Your task to perform on an android device: Is it going to rain tomorrow? Image 0: 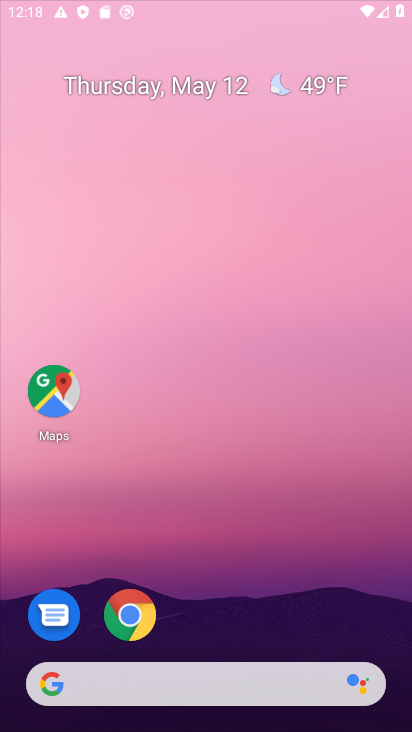
Step 0: drag from (235, 694) to (339, 336)
Your task to perform on an android device: Is it going to rain tomorrow? Image 1: 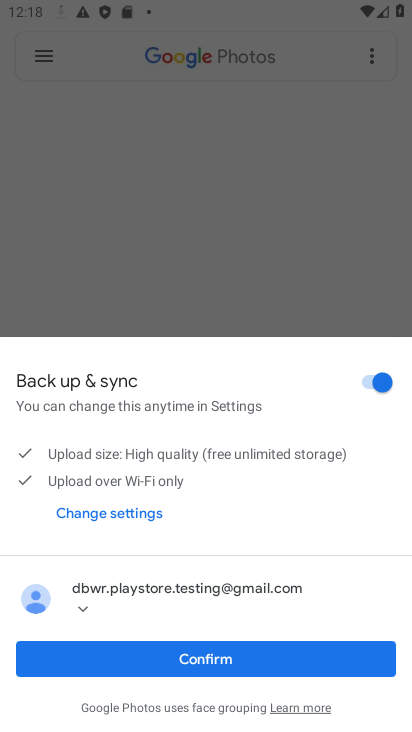
Step 1: click (190, 653)
Your task to perform on an android device: Is it going to rain tomorrow? Image 2: 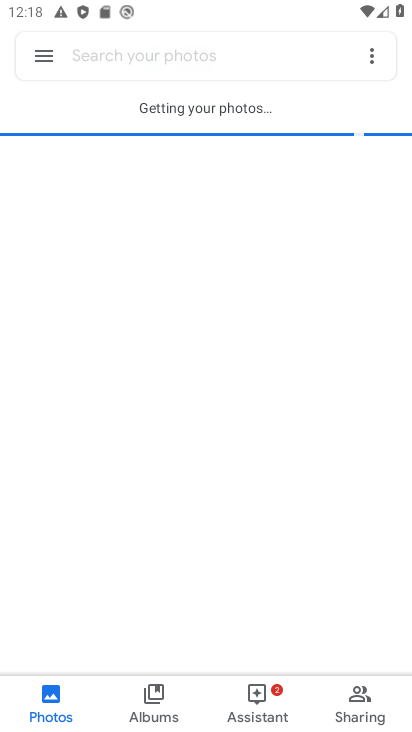
Step 2: press home button
Your task to perform on an android device: Is it going to rain tomorrow? Image 3: 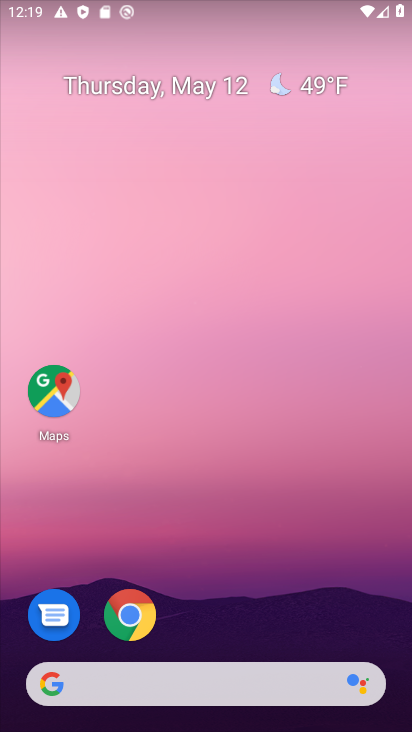
Step 3: click (145, 683)
Your task to perform on an android device: Is it going to rain tomorrow? Image 4: 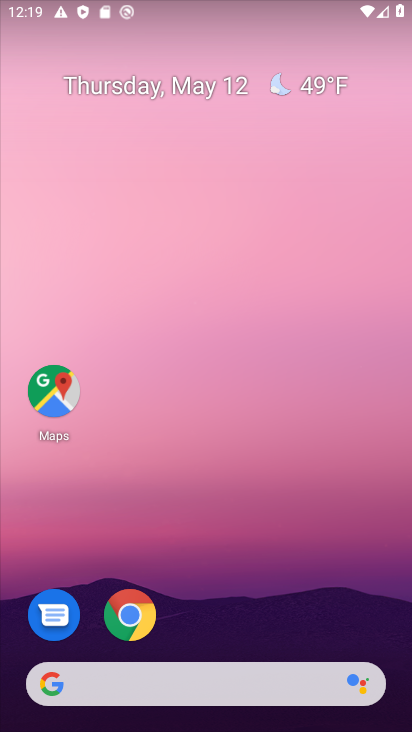
Step 4: click (204, 672)
Your task to perform on an android device: Is it going to rain tomorrow? Image 5: 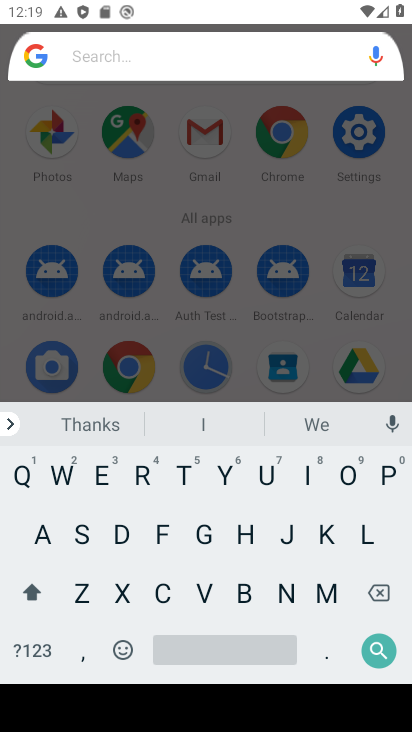
Step 5: click (67, 476)
Your task to perform on an android device: Is it going to rain tomorrow? Image 6: 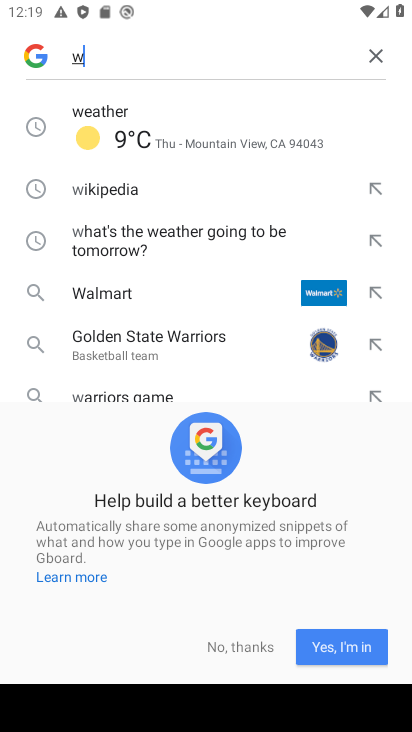
Step 6: click (106, 118)
Your task to perform on an android device: Is it going to rain tomorrow? Image 7: 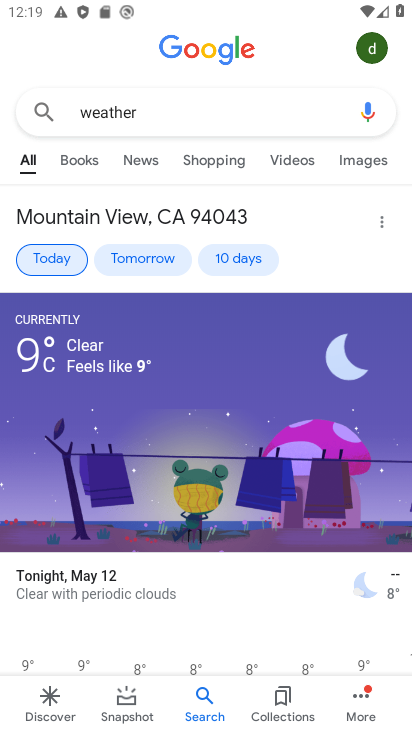
Step 7: click (115, 258)
Your task to perform on an android device: Is it going to rain tomorrow? Image 8: 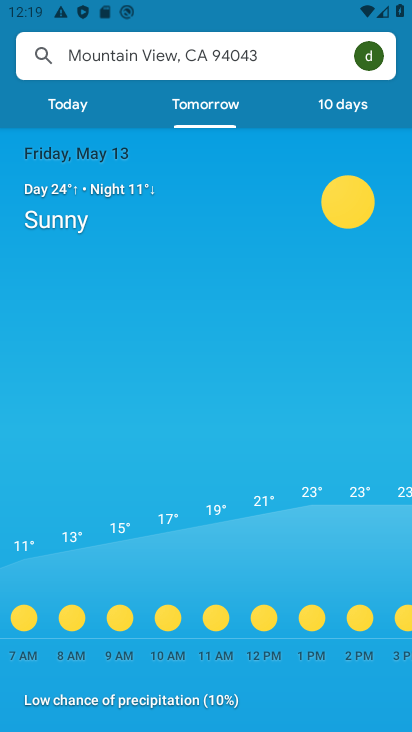
Step 8: task complete